Your task to perform on an android device: toggle data saver in the chrome app Image 0: 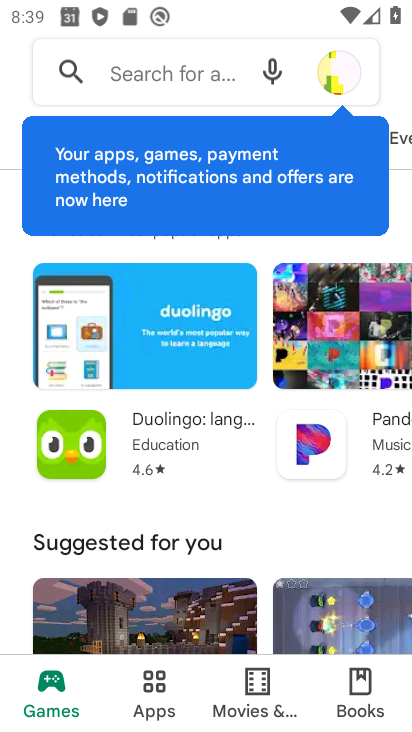
Step 0: press home button
Your task to perform on an android device: toggle data saver in the chrome app Image 1: 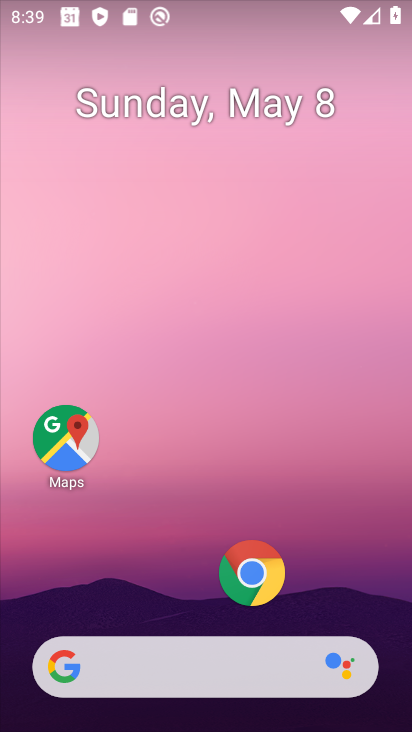
Step 1: click (251, 575)
Your task to perform on an android device: toggle data saver in the chrome app Image 2: 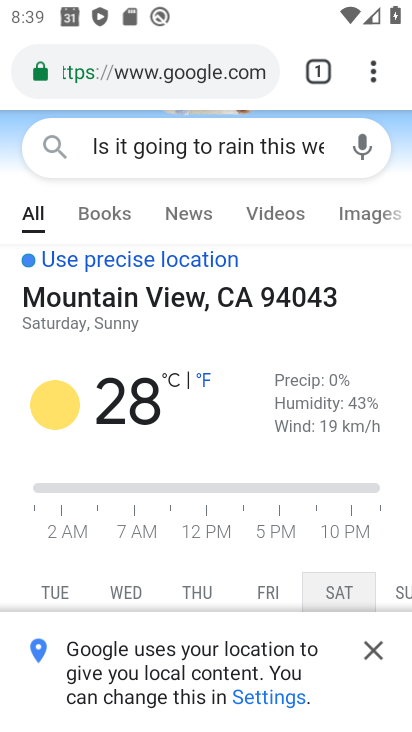
Step 2: click (373, 64)
Your task to perform on an android device: toggle data saver in the chrome app Image 3: 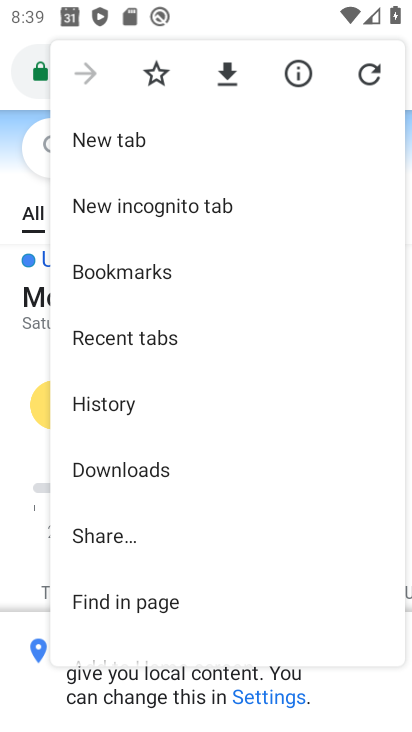
Step 3: drag from (168, 547) to (202, 234)
Your task to perform on an android device: toggle data saver in the chrome app Image 4: 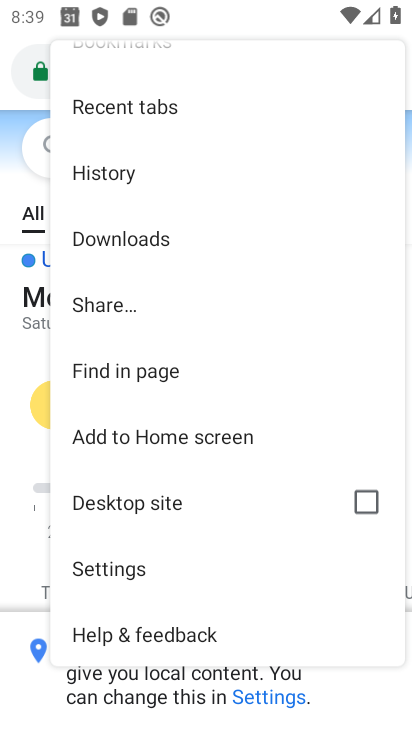
Step 4: click (119, 570)
Your task to perform on an android device: toggle data saver in the chrome app Image 5: 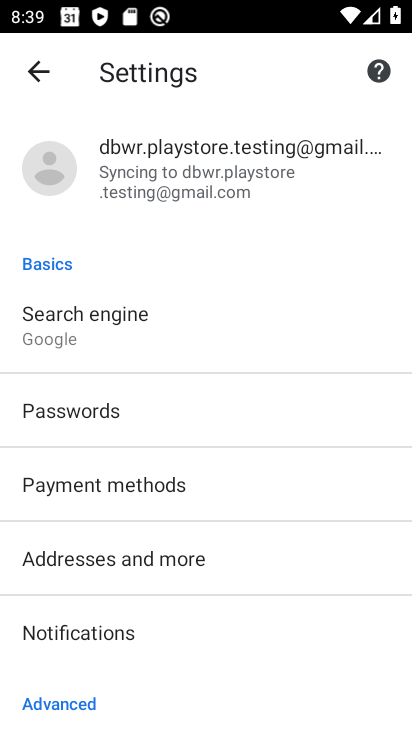
Step 5: drag from (130, 608) to (117, 346)
Your task to perform on an android device: toggle data saver in the chrome app Image 6: 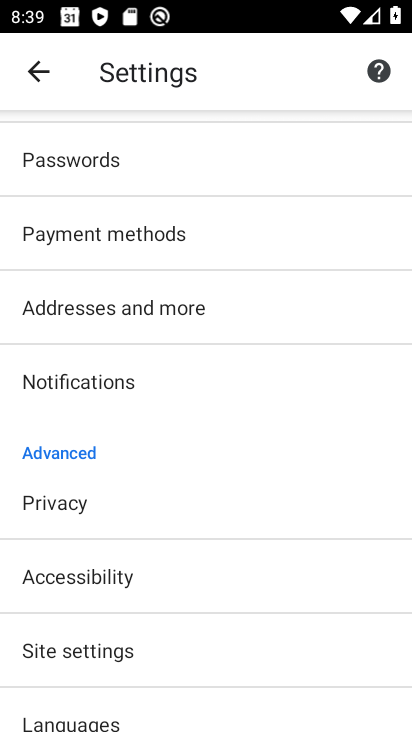
Step 6: drag from (121, 625) to (138, 332)
Your task to perform on an android device: toggle data saver in the chrome app Image 7: 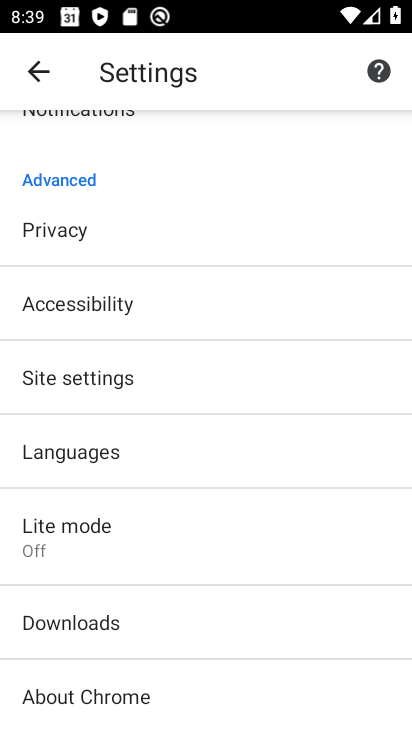
Step 7: click (68, 524)
Your task to perform on an android device: toggle data saver in the chrome app Image 8: 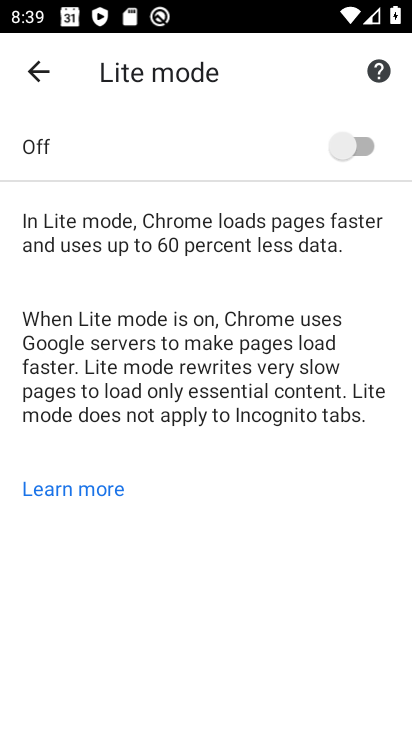
Step 8: click (354, 160)
Your task to perform on an android device: toggle data saver in the chrome app Image 9: 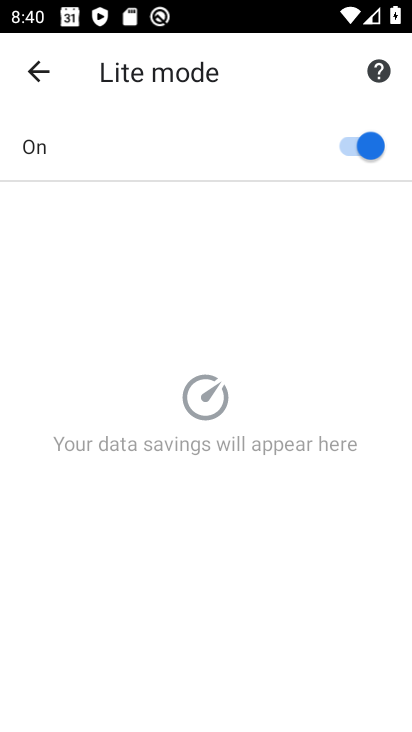
Step 9: task complete